Your task to perform on an android device: Do I have any events this weekend? Image 0: 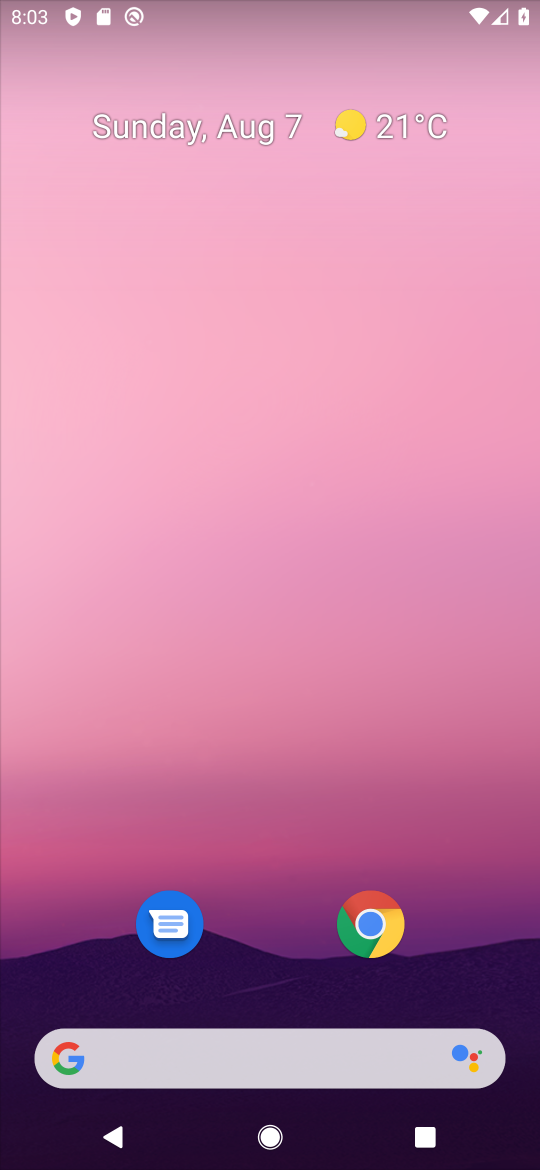
Step 0: drag from (286, 884) to (350, 0)
Your task to perform on an android device: Do I have any events this weekend? Image 1: 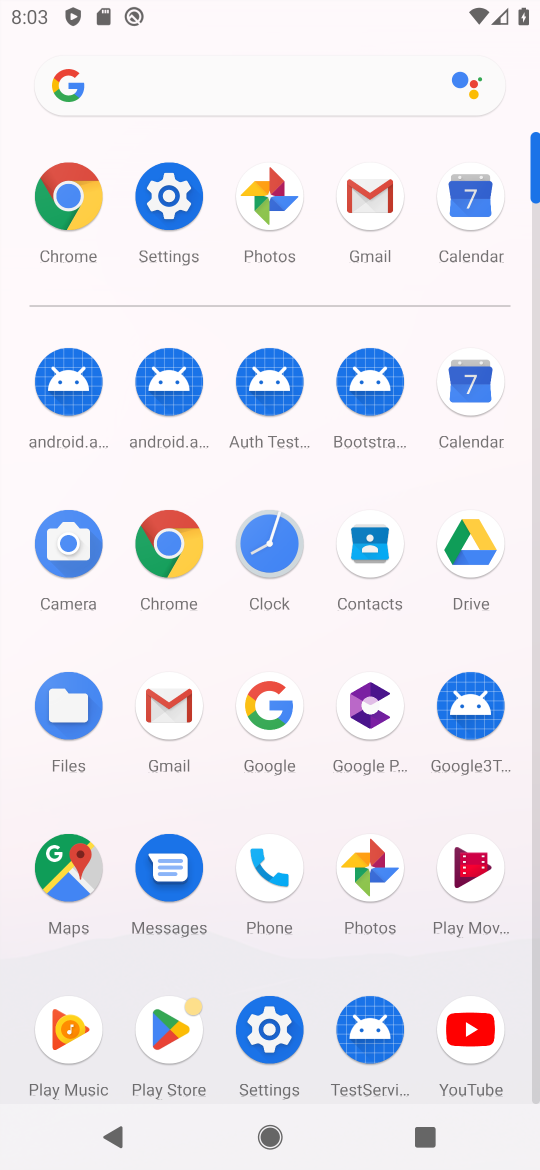
Step 1: click (480, 201)
Your task to perform on an android device: Do I have any events this weekend? Image 2: 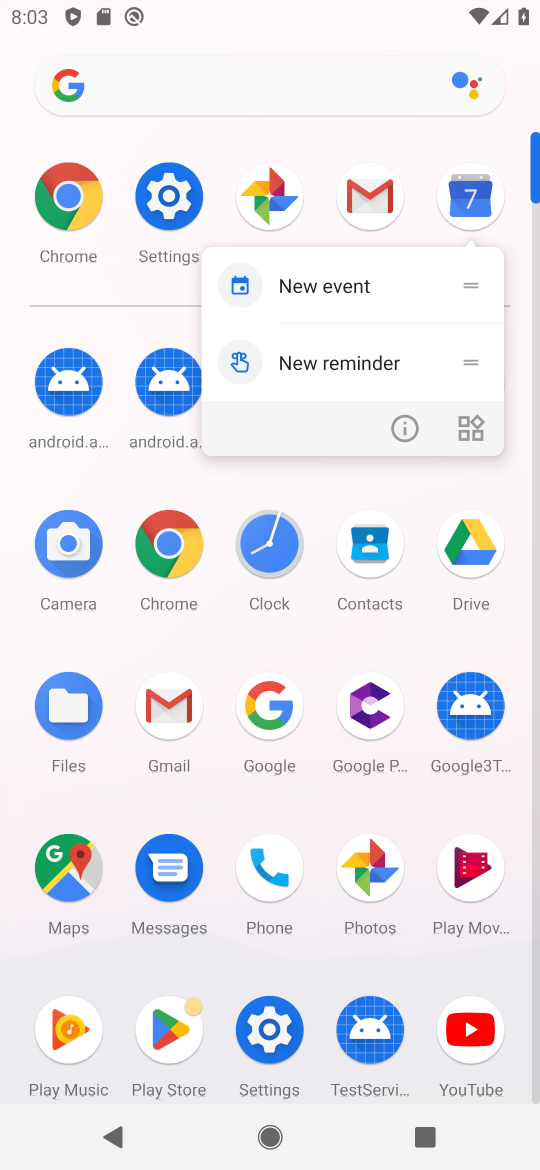
Step 2: click (480, 201)
Your task to perform on an android device: Do I have any events this weekend? Image 3: 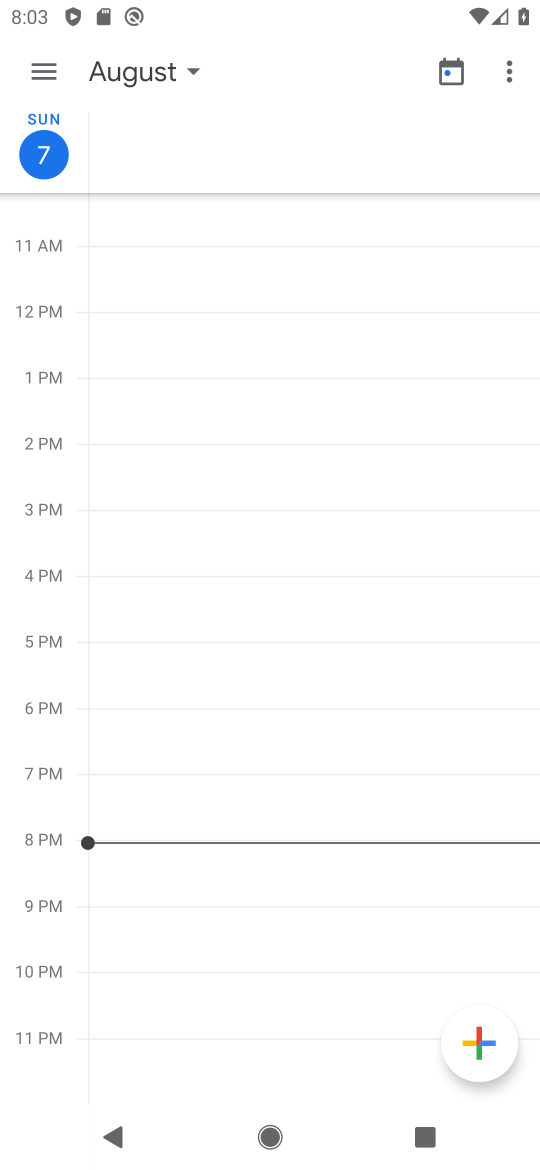
Step 3: click (48, 68)
Your task to perform on an android device: Do I have any events this weekend? Image 4: 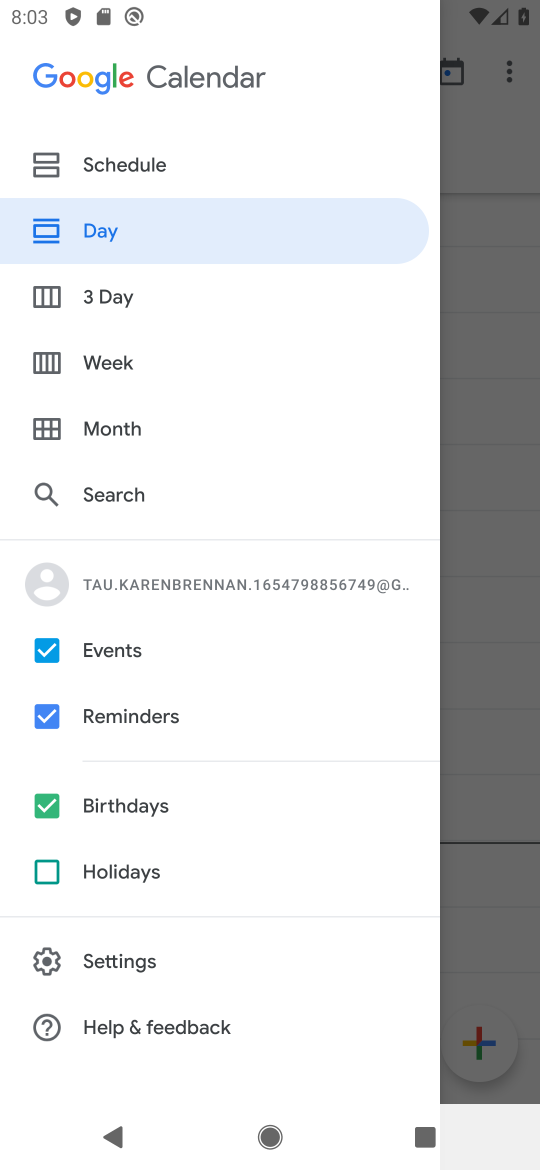
Step 4: click (55, 360)
Your task to perform on an android device: Do I have any events this weekend? Image 5: 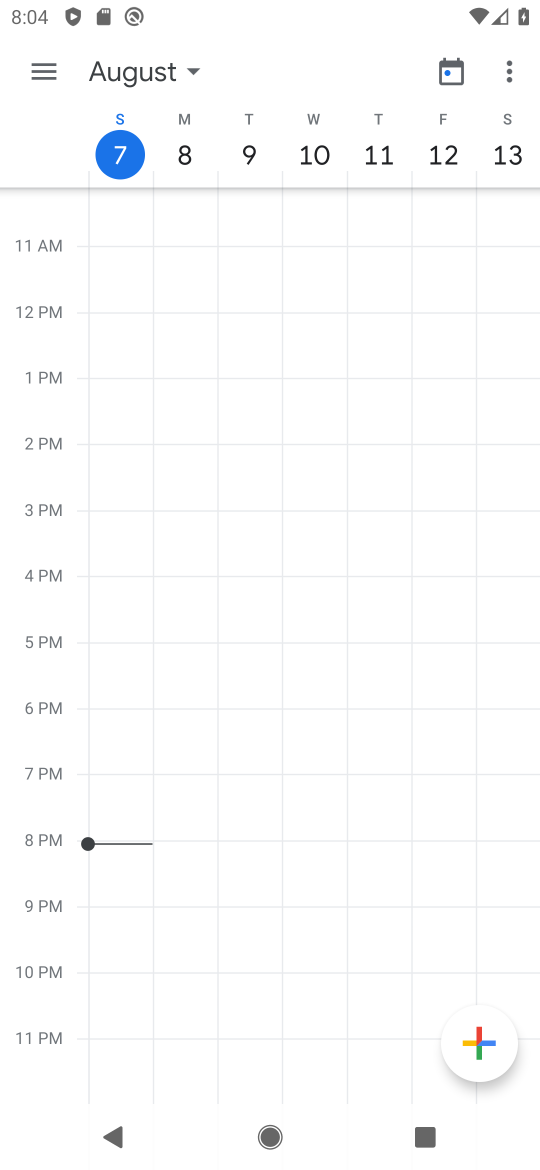
Step 5: task complete